Your task to perform on an android device: Open Yahoo.com Image 0: 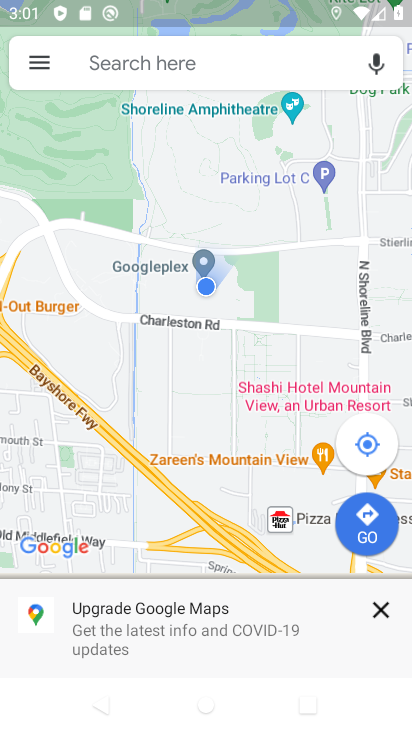
Step 0: press home button
Your task to perform on an android device: Open Yahoo.com Image 1: 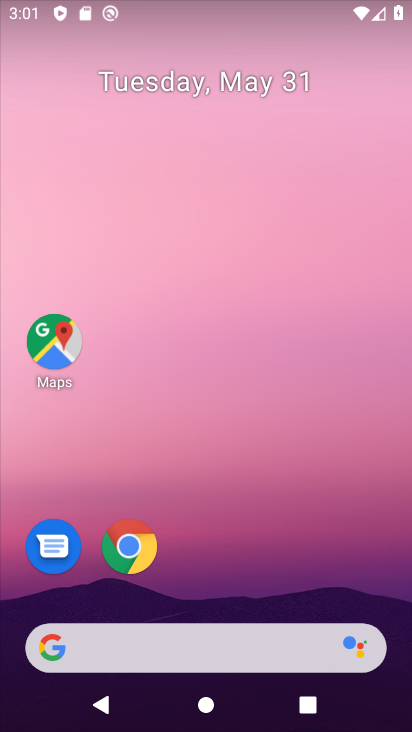
Step 1: click (126, 554)
Your task to perform on an android device: Open Yahoo.com Image 2: 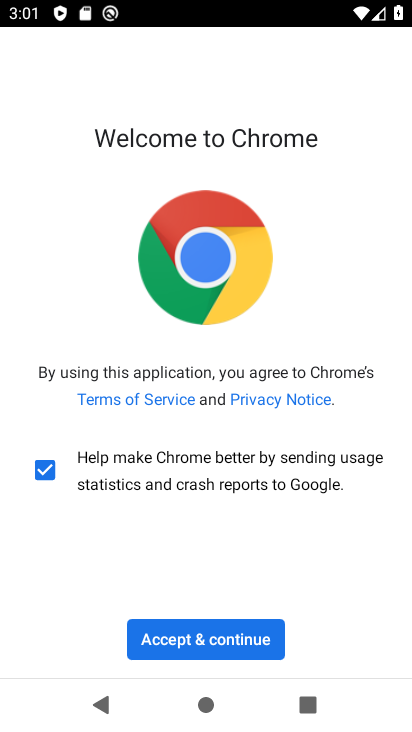
Step 2: click (184, 649)
Your task to perform on an android device: Open Yahoo.com Image 3: 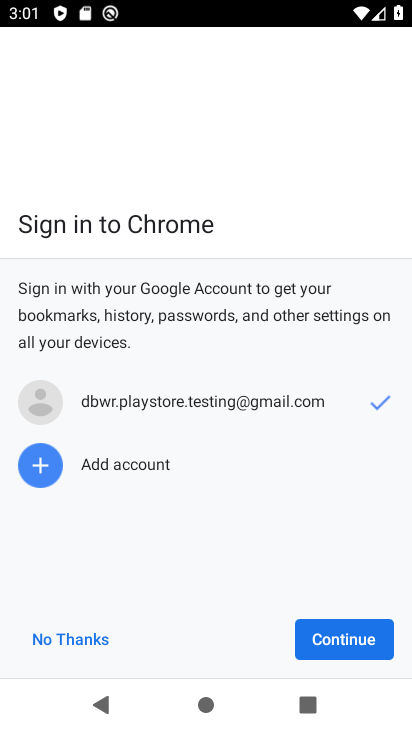
Step 3: click (315, 631)
Your task to perform on an android device: Open Yahoo.com Image 4: 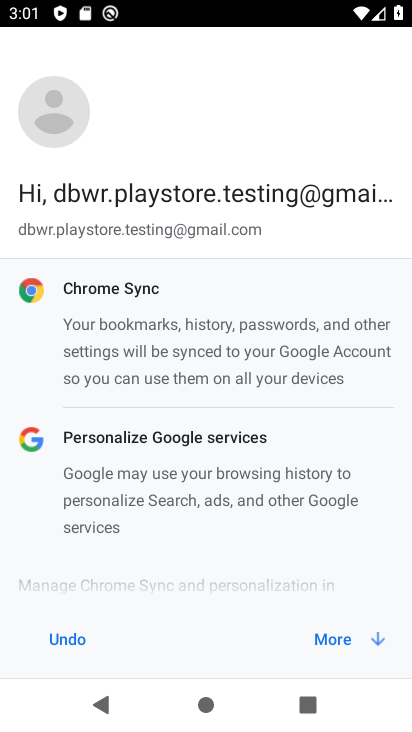
Step 4: click (329, 642)
Your task to perform on an android device: Open Yahoo.com Image 5: 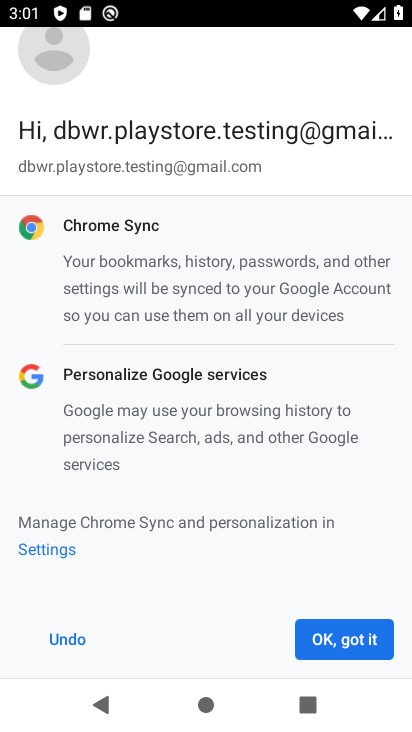
Step 5: click (329, 642)
Your task to perform on an android device: Open Yahoo.com Image 6: 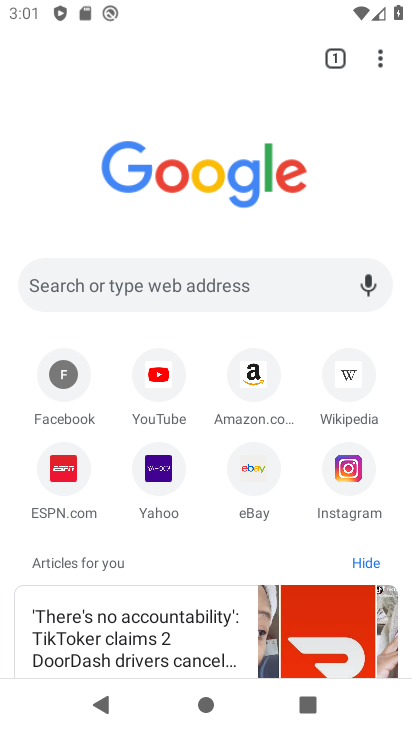
Step 6: click (151, 486)
Your task to perform on an android device: Open Yahoo.com Image 7: 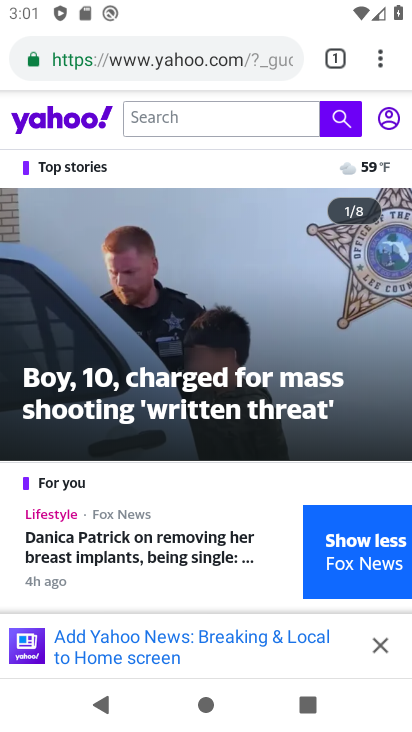
Step 7: task complete